Your task to perform on an android device: Go to network settings Image 0: 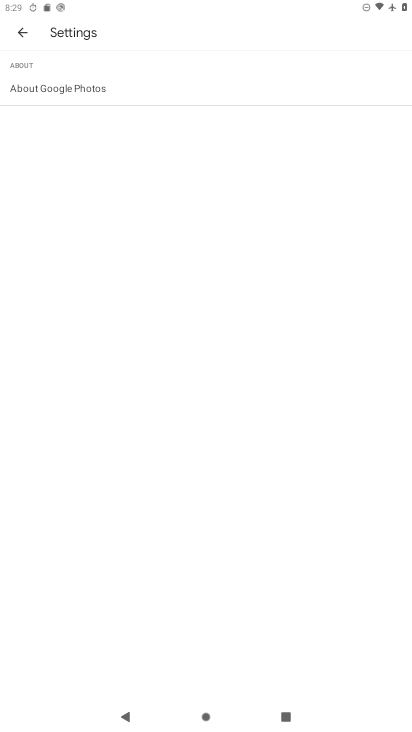
Step 0: press home button
Your task to perform on an android device: Go to network settings Image 1: 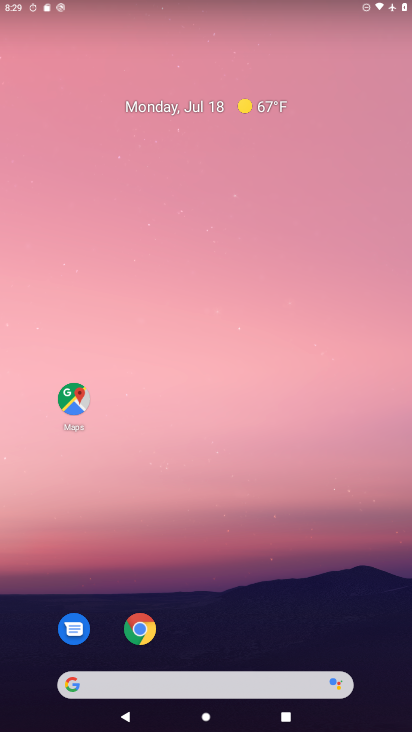
Step 1: drag from (227, 649) to (137, 11)
Your task to perform on an android device: Go to network settings Image 2: 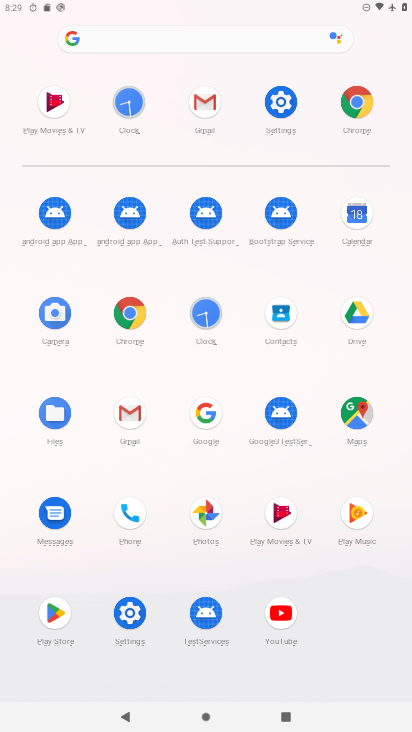
Step 2: click (262, 62)
Your task to perform on an android device: Go to network settings Image 3: 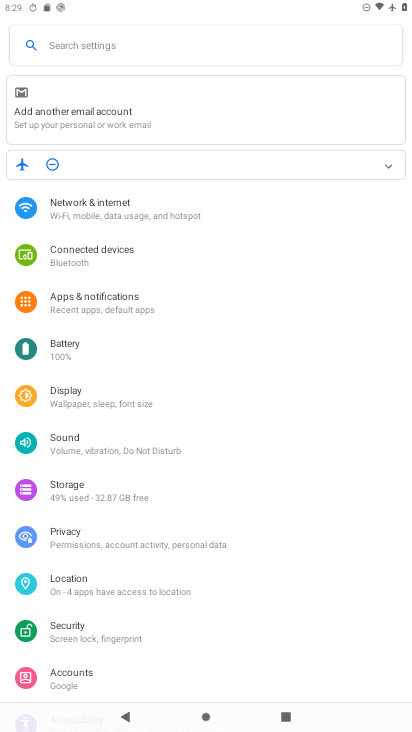
Step 3: click (177, 208)
Your task to perform on an android device: Go to network settings Image 4: 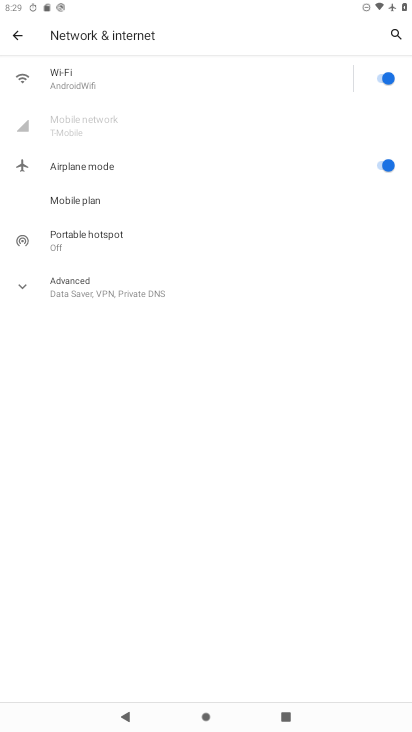
Step 4: task complete